Your task to perform on an android device: turn pop-ups on in chrome Image 0: 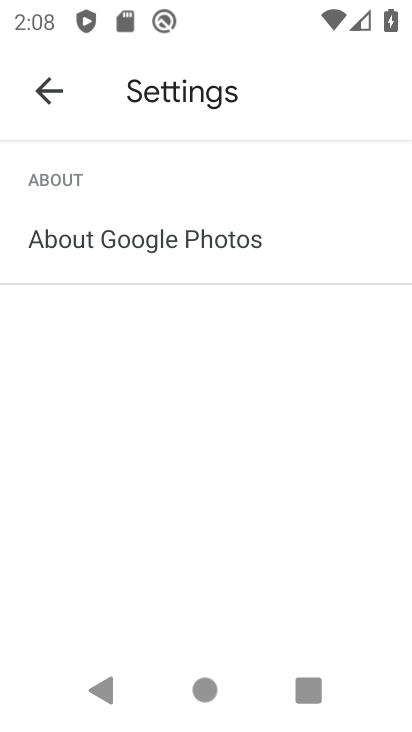
Step 0: press home button
Your task to perform on an android device: turn pop-ups on in chrome Image 1: 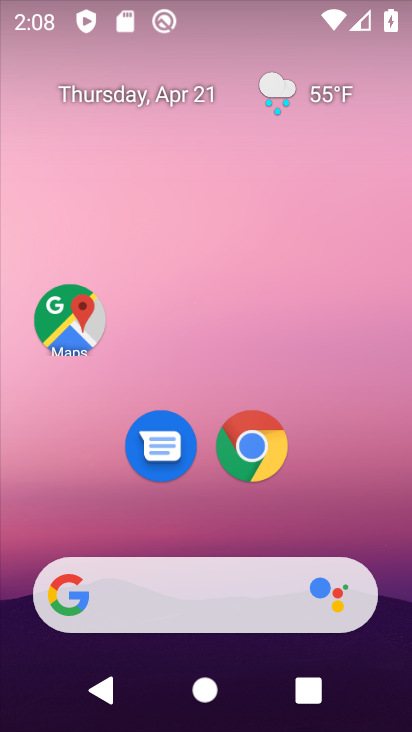
Step 1: click (248, 446)
Your task to perform on an android device: turn pop-ups on in chrome Image 2: 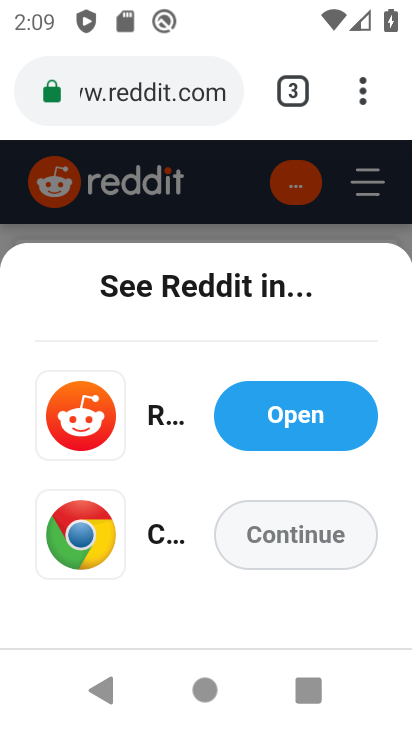
Step 2: drag from (362, 94) to (125, 466)
Your task to perform on an android device: turn pop-ups on in chrome Image 3: 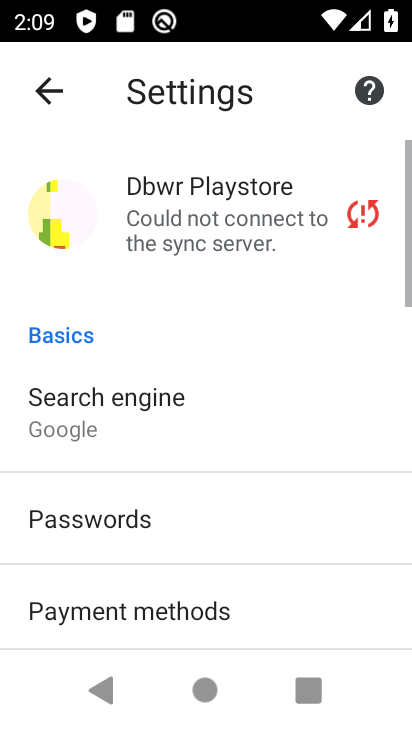
Step 3: drag from (174, 626) to (202, 314)
Your task to perform on an android device: turn pop-ups on in chrome Image 4: 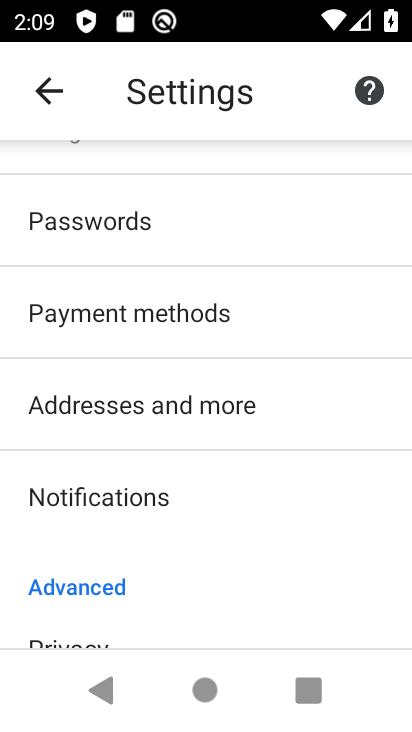
Step 4: drag from (171, 625) to (206, 263)
Your task to perform on an android device: turn pop-ups on in chrome Image 5: 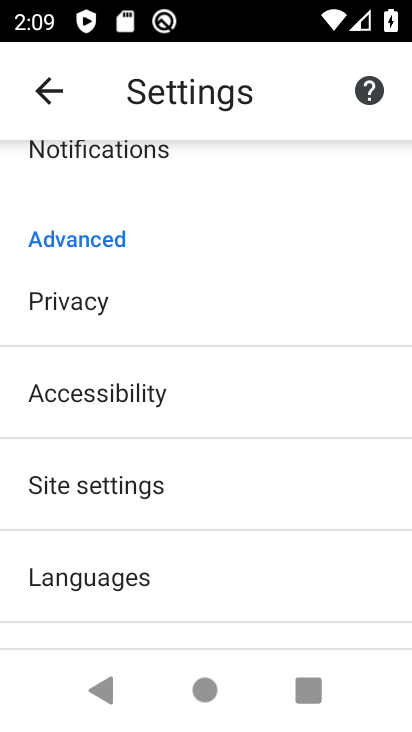
Step 5: drag from (173, 623) to (165, 446)
Your task to perform on an android device: turn pop-ups on in chrome Image 6: 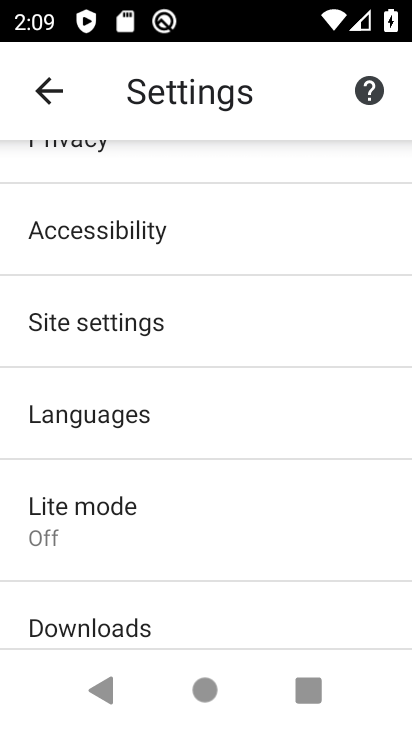
Step 6: click (91, 322)
Your task to perform on an android device: turn pop-ups on in chrome Image 7: 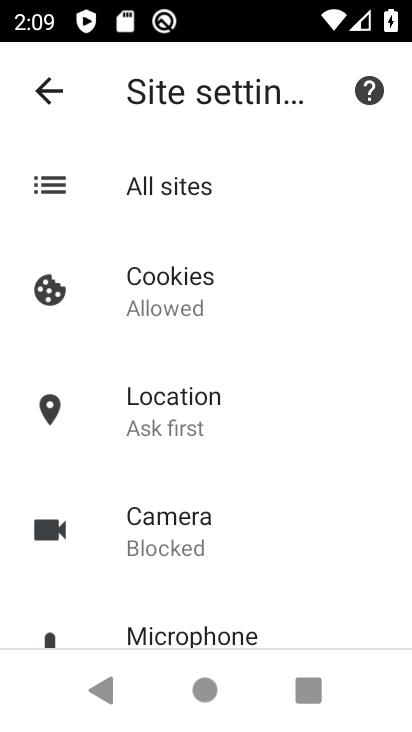
Step 7: drag from (203, 599) to (212, 263)
Your task to perform on an android device: turn pop-ups on in chrome Image 8: 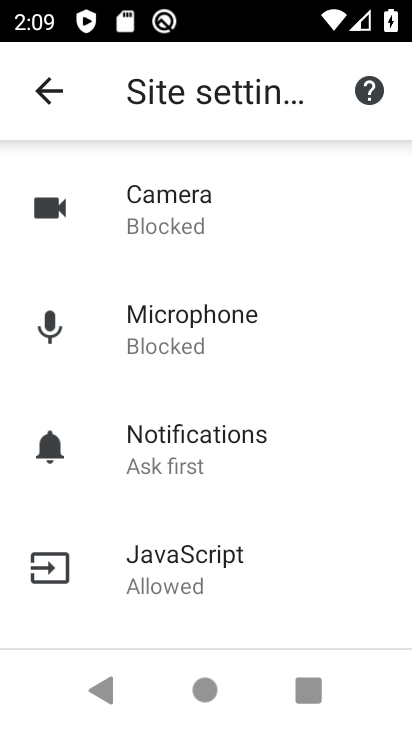
Step 8: drag from (198, 609) to (199, 250)
Your task to perform on an android device: turn pop-ups on in chrome Image 9: 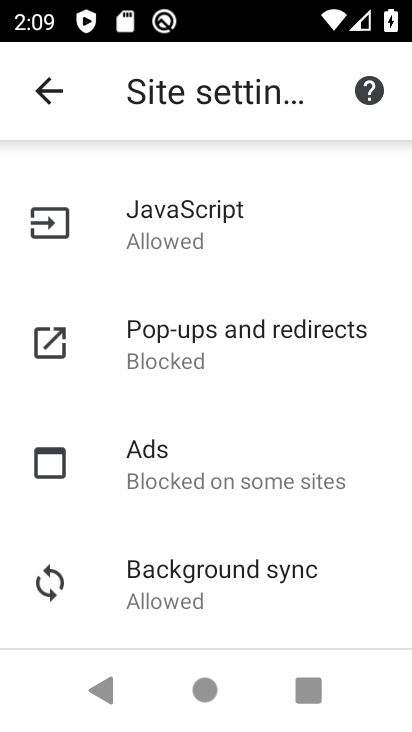
Step 9: click (160, 346)
Your task to perform on an android device: turn pop-ups on in chrome Image 10: 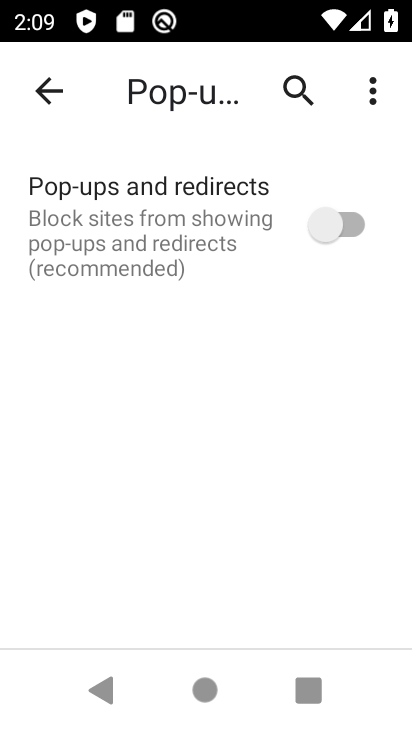
Step 10: click (349, 226)
Your task to perform on an android device: turn pop-ups on in chrome Image 11: 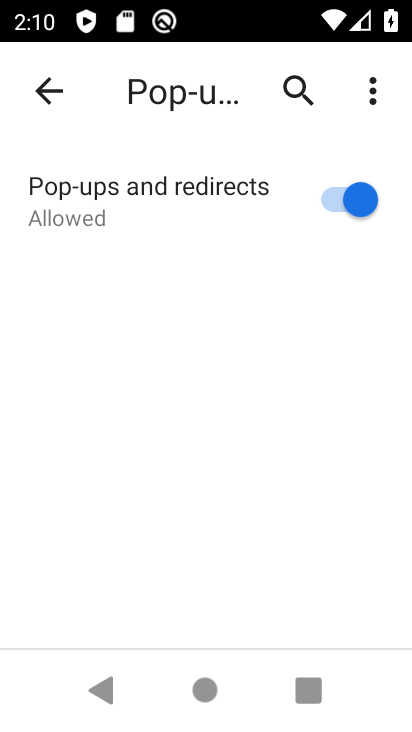
Step 11: task complete